Your task to perform on an android device: Go to accessibility settings Image 0: 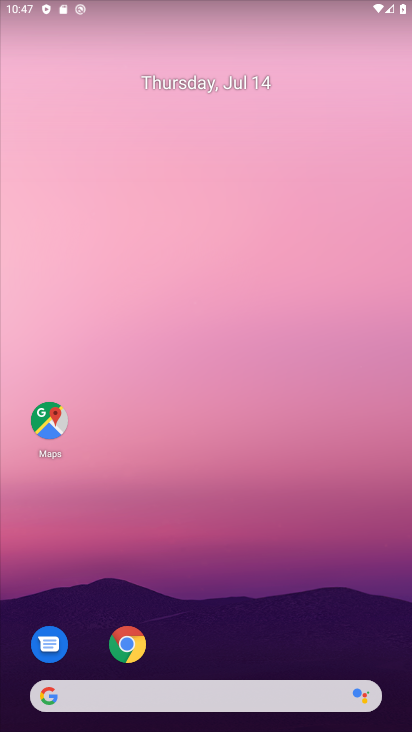
Step 0: drag from (361, 641) to (273, 11)
Your task to perform on an android device: Go to accessibility settings Image 1: 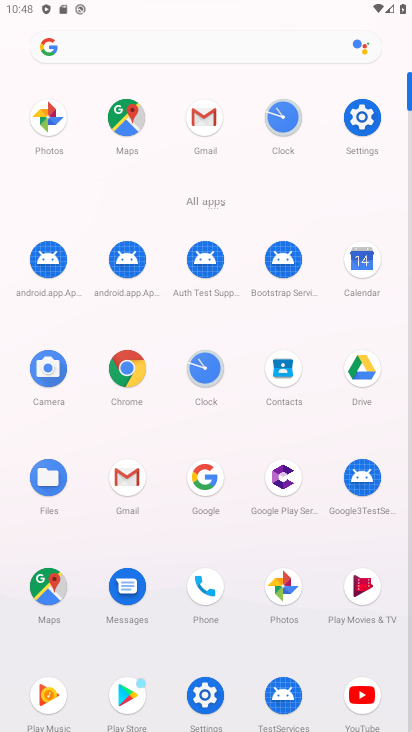
Step 1: click (214, 676)
Your task to perform on an android device: Go to accessibility settings Image 2: 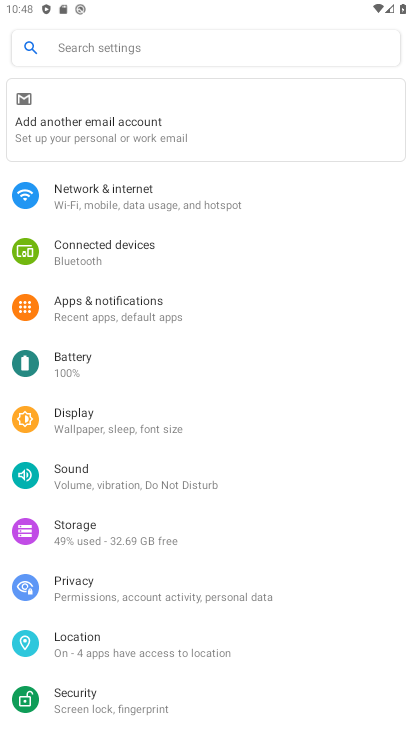
Step 2: drag from (51, 690) to (145, 179)
Your task to perform on an android device: Go to accessibility settings Image 3: 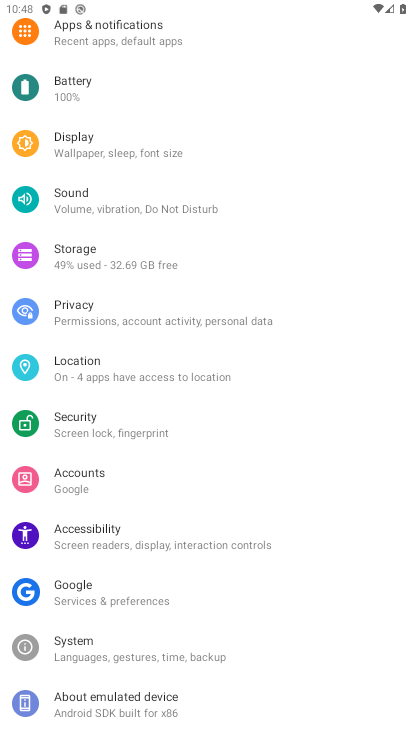
Step 3: click (114, 533)
Your task to perform on an android device: Go to accessibility settings Image 4: 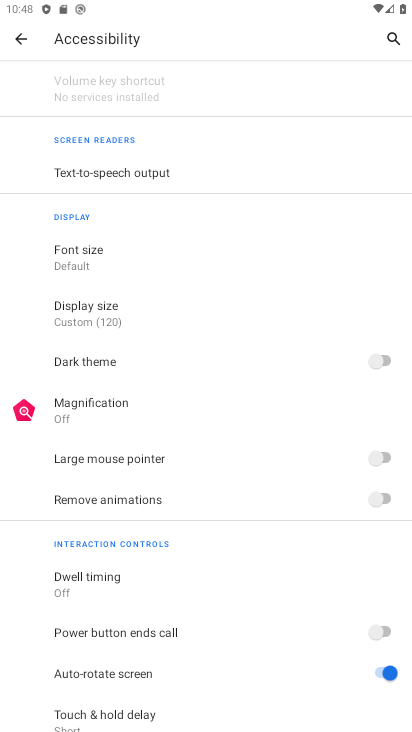
Step 4: task complete